Your task to perform on an android device: View the shopping cart on walmart. Search for amazon basics triple a on walmart, select the first entry, add it to the cart, then select checkout. Image 0: 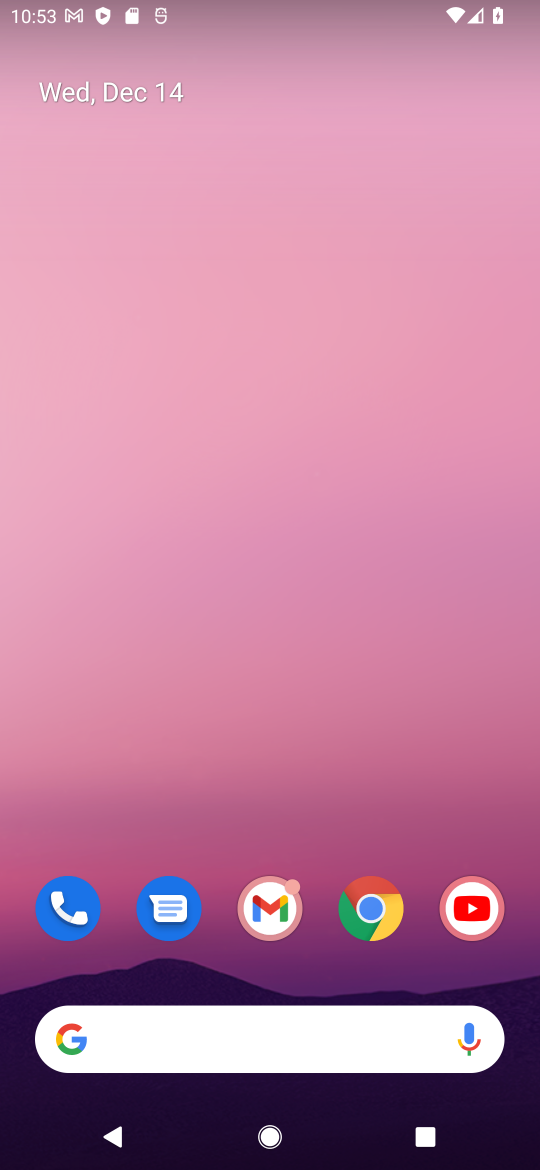
Step 0: click (376, 915)
Your task to perform on an android device: View the shopping cart on walmart. Search for amazon basics triple a on walmart, select the first entry, add it to the cart, then select checkout. Image 1: 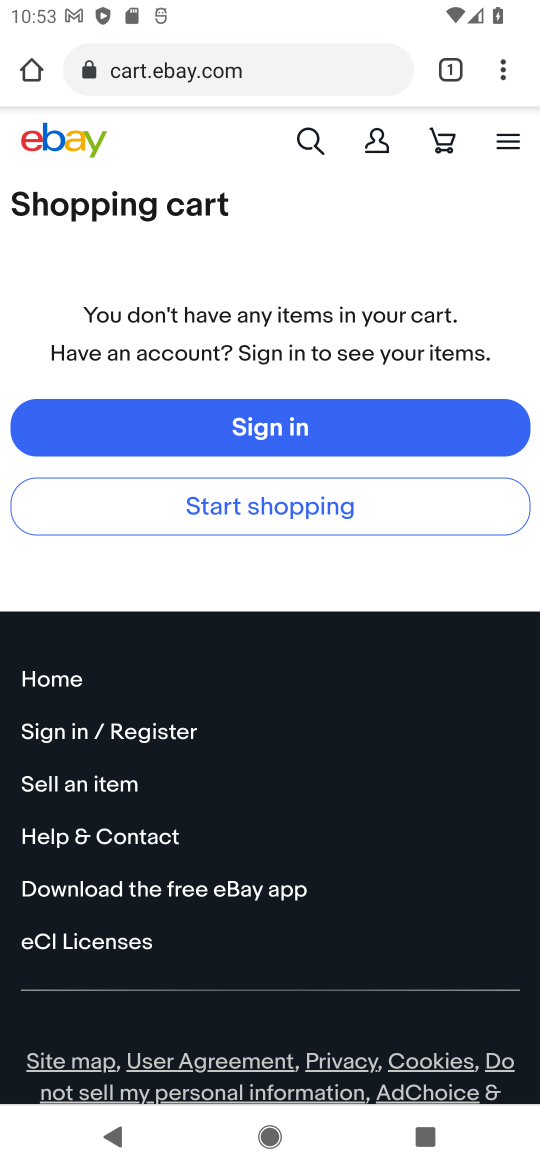
Step 1: click (174, 70)
Your task to perform on an android device: View the shopping cart on walmart. Search for amazon basics triple a on walmart, select the first entry, add it to the cart, then select checkout. Image 2: 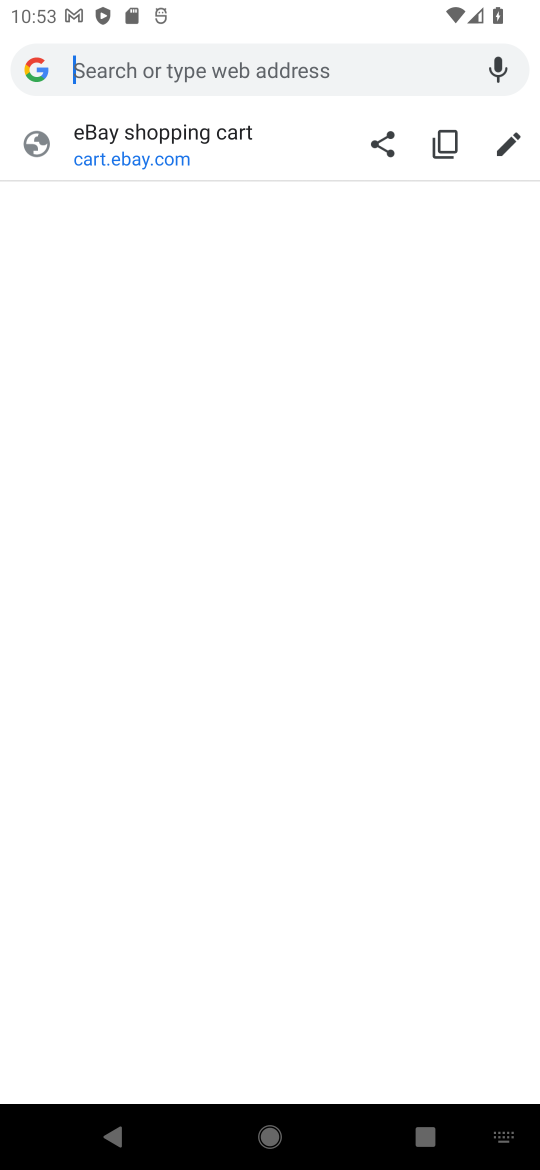
Step 2: type "walmart.com"
Your task to perform on an android device: View the shopping cart on walmart. Search for amazon basics triple a on walmart, select the first entry, add it to the cart, then select checkout. Image 3: 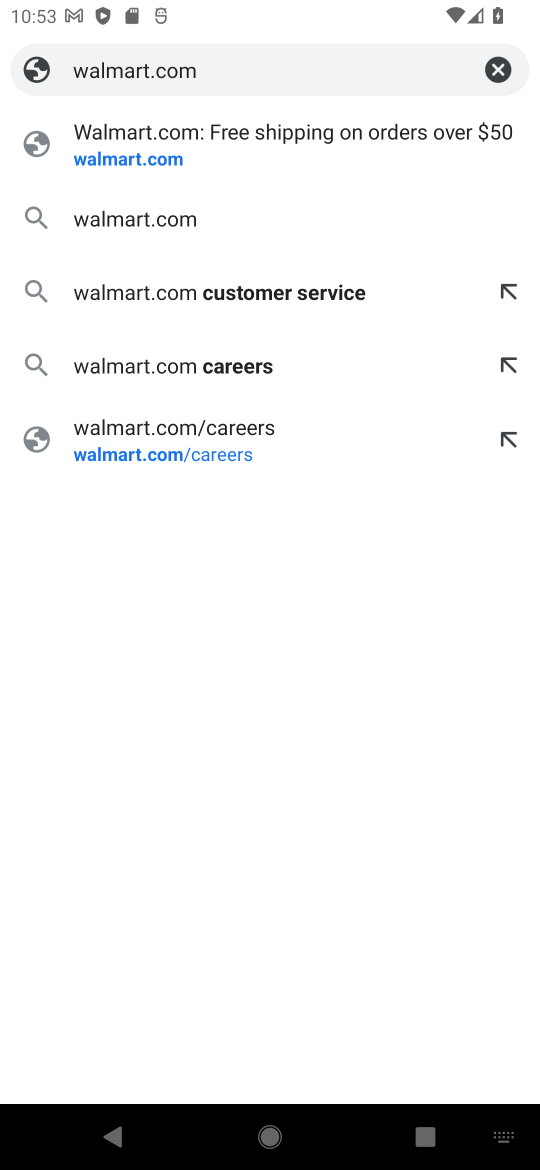
Step 3: click (121, 146)
Your task to perform on an android device: View the shopping cart on walmart. Search for amazon basics triple a on walmart, select the first entry, add it to the cart, then select checkout. Image 4: 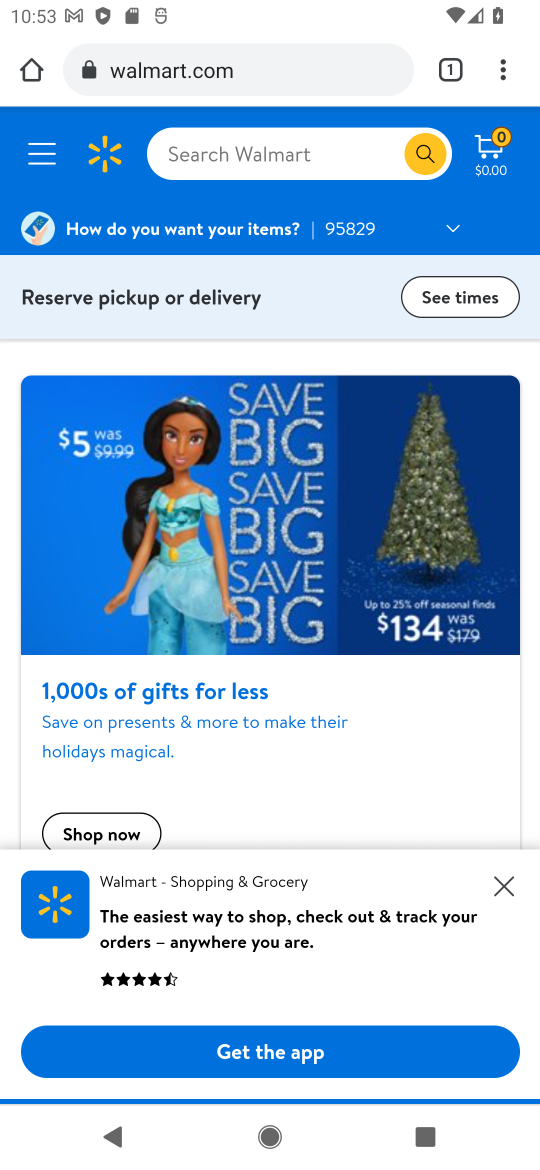
Step 4: click (487, 170)
Your task to perform on an android device: View the shopping cart on walmart. Search for amazon basics triple a on walmart, select the first entry, add it to the cart, then select checkout. Image 5: 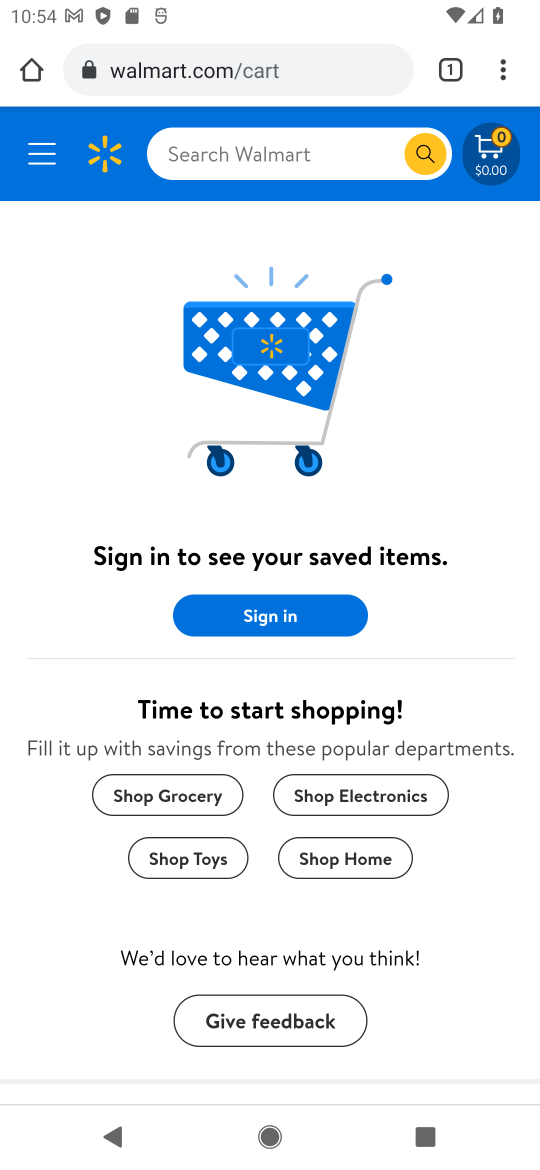
Step 5: click (263, 143)
Your task to perform on an android device: View the shopping cart on walmart. Search for amazon basics triple a on walmart, select the first entry, add it to the cart, then select checkout. Image 6: 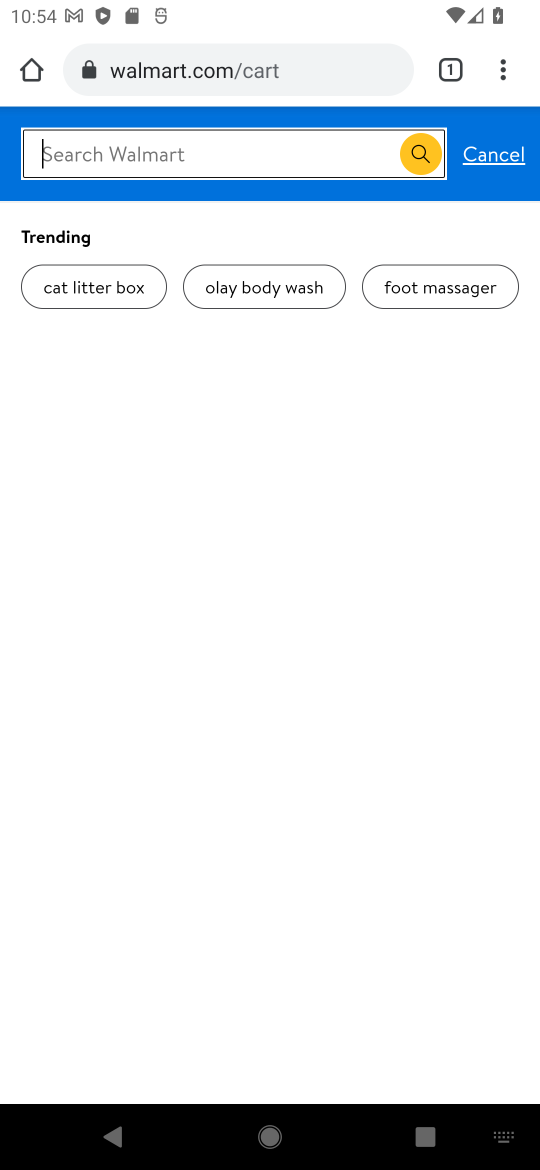
Step 6: type " amazon basics triple a"
Your task to perform on an android device: View the shopping cart on walmart. Search for amazon basics triple a on walmart, select the first entry, add it to the cart, then select checkout. Image 7: 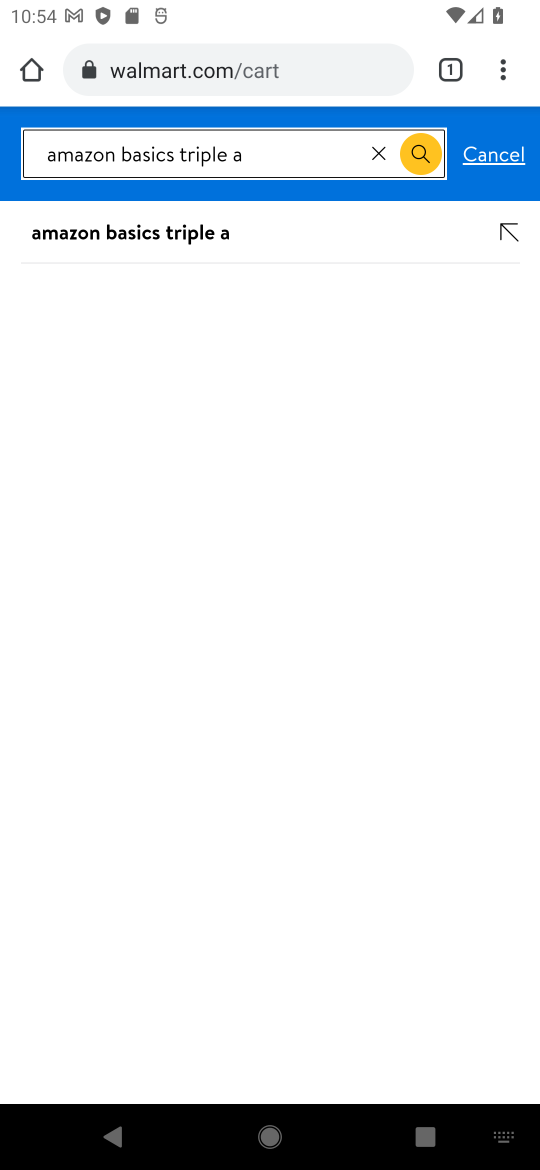
Step 7: click (163, 231)
Your task to perform on an android device: View the shopping cart on walmart. Search for amazon basics triple a on walmart, select the first entry, add it to the cart, then select checkout. Image 8: 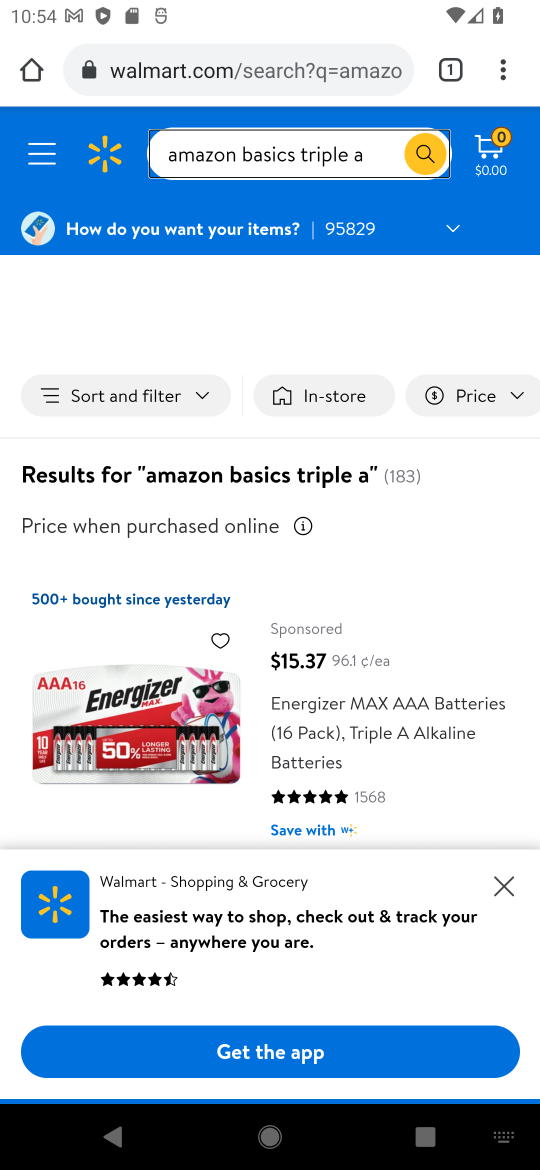
Step 8: task complete